Your task to perform on an android device: allow notifications from all sites in the chrome app Image 0: 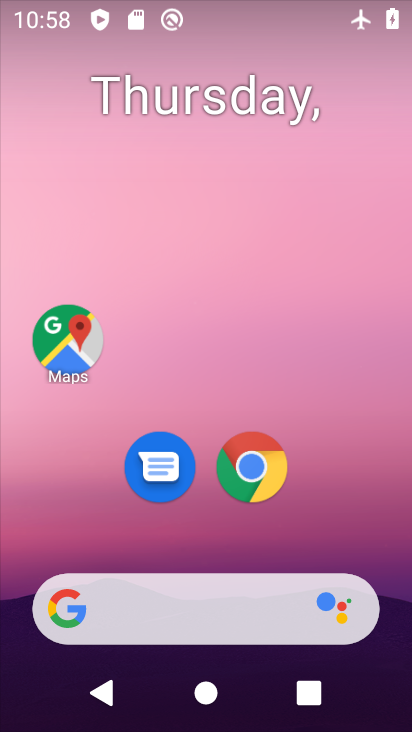
Step 0: click (252, 474)
Your task to perform on an android device: allow notifications from all sites in the chrome app Image 1: 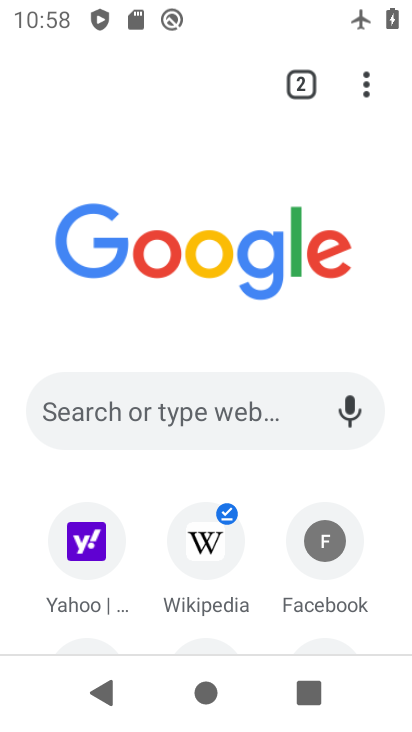
Step 1: click (367, 87)
Your task to perform on an android device: allow notifications from all sites in the chrome app Image 2: 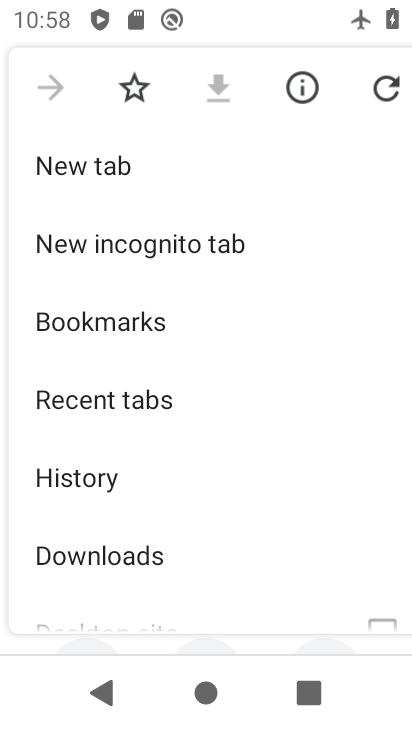
Step 2: drag from (213, 514) to (219, 228)
Your task to perform on an android device: allow notifications from all sites in the chrome app Image 3: 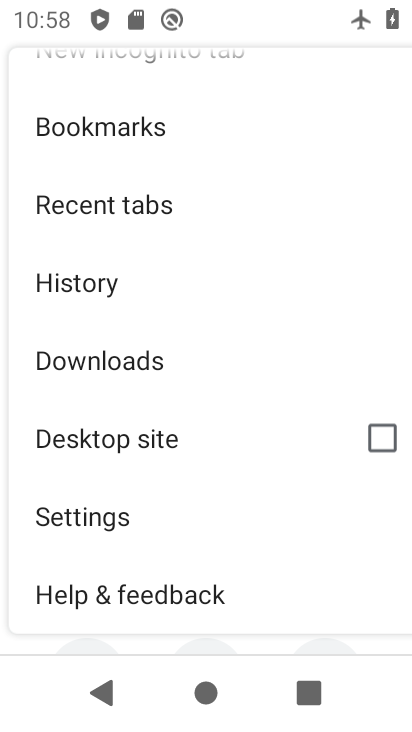
Step 3: click (86, 517)
Your task to perform on an android device: allow notifications from all sites in the chrome app Image 4: 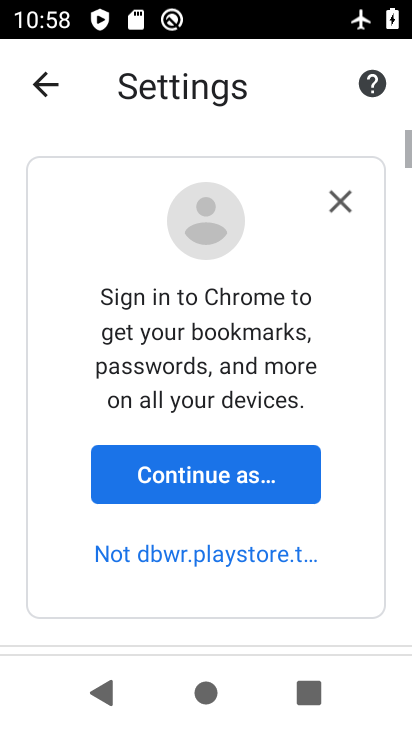
Step 4: drag from (163, 618) to (160, 125)
Your task to perform on an android device: allow notifications from all sites in the chrome app Image 5: 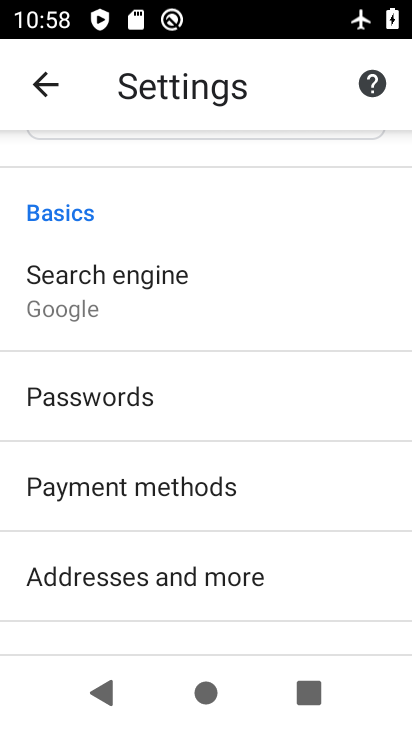
Step 5: drag from (155, 514) to (156, 182)
Your task to perform on an android device: allow notifications from all sites in the chrome app Image 6: 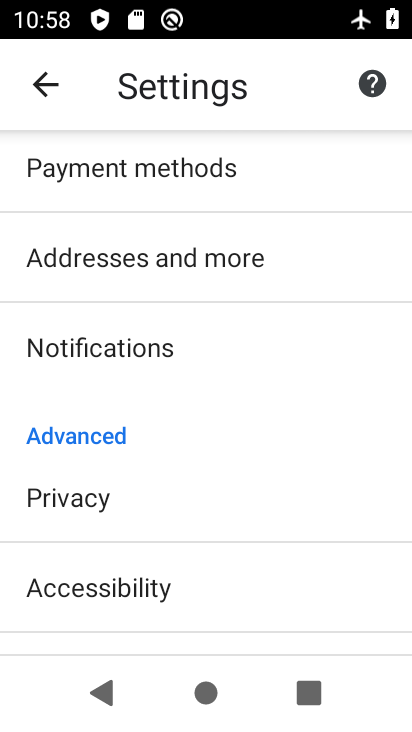
Step 6: drag from (172, 500) to (168, 215)
Your task to perform on an android device: allow notifications from all sites in the chrome app Image 7: 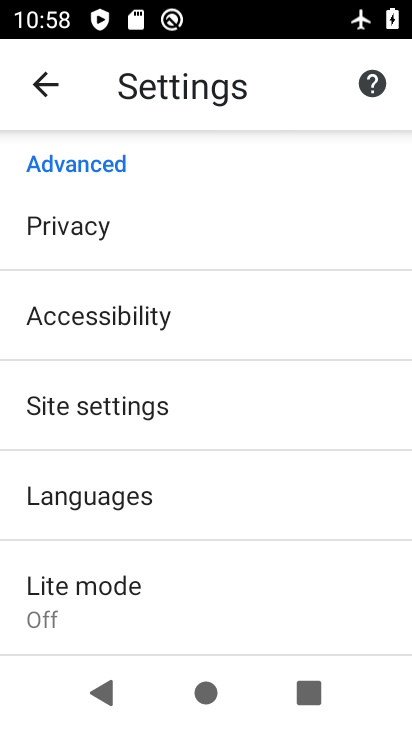
Step 7: click (106, 409)
Your task to perform on an android device: allow notifications from all sites in the chrome app Image 8: 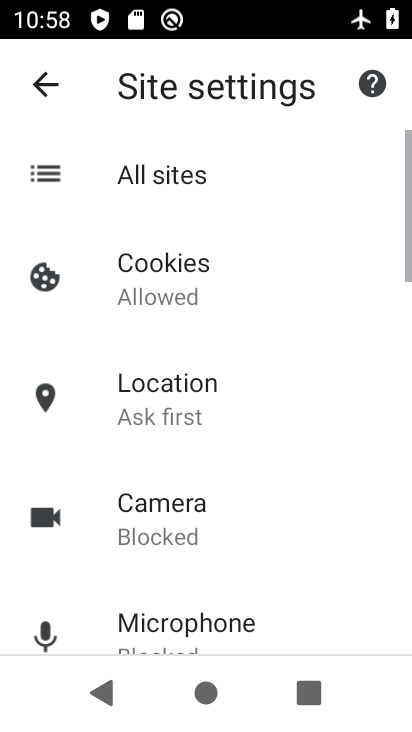
Step 8: drag from (286, 424) to (271, 195)
Your task to perform on an android device: allow notifications from all sites in the chrome app Image 9: 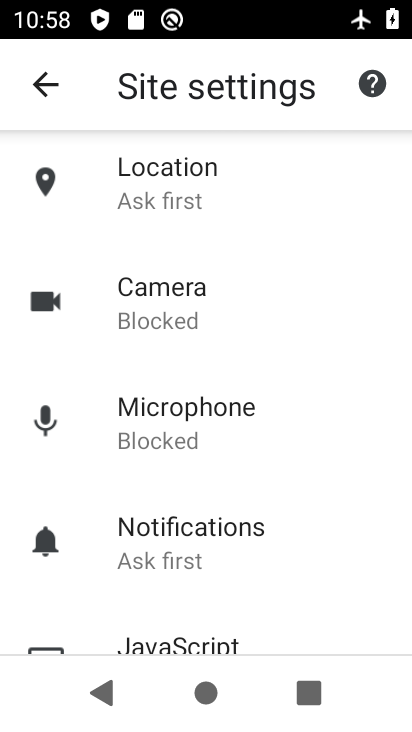
Step 9: click (178, 537)
Your task to perform on an android device: allow notifications from all sites in the chrome app Image 10: 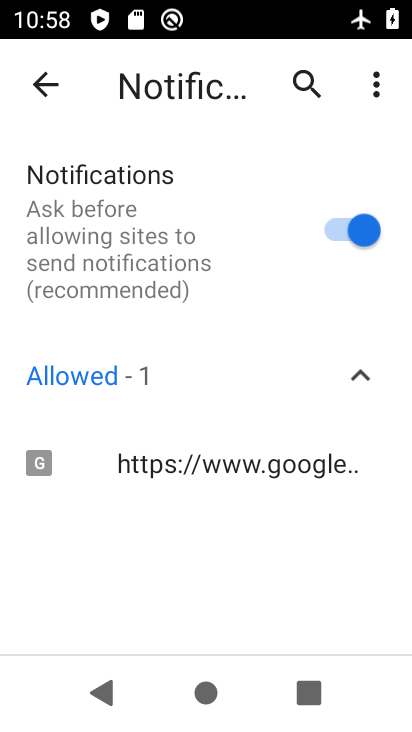
Step 10: task complete